Your task to perform on an android device: toggle notification dots Image 0: 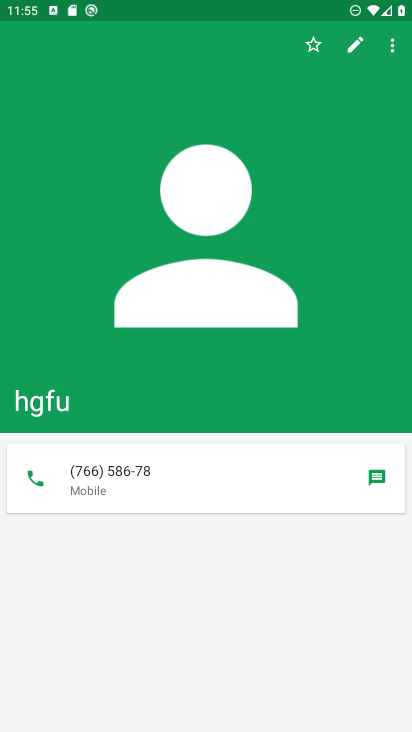
Step 0: press home button
Your task to perform on an android device: toggle notification dots Image 1: 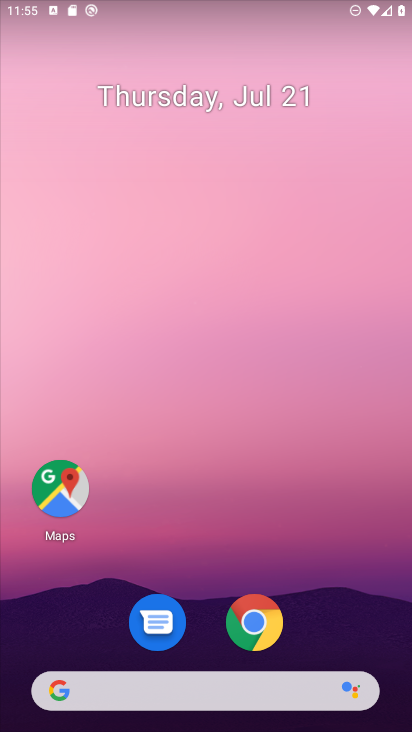
Step 1: drag from (235, 730) to (121, 4)
Your task to perform on an android device: toggle notification dots Image 2: 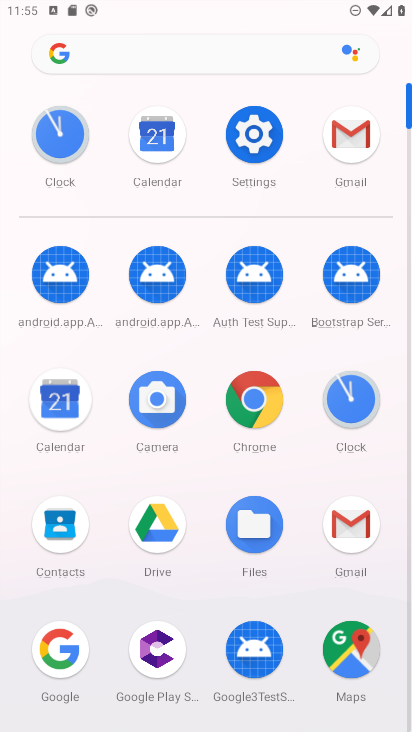
Step 2: click (253, 137)
Your task to perform on an android device: toggle notification dots Image 3: 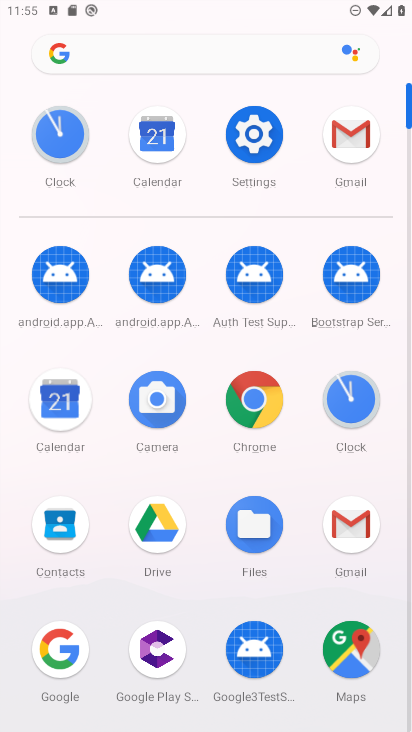
Step 3: click (253, 137)
Your task to perform on an android device: toggle notification dots Image 4: 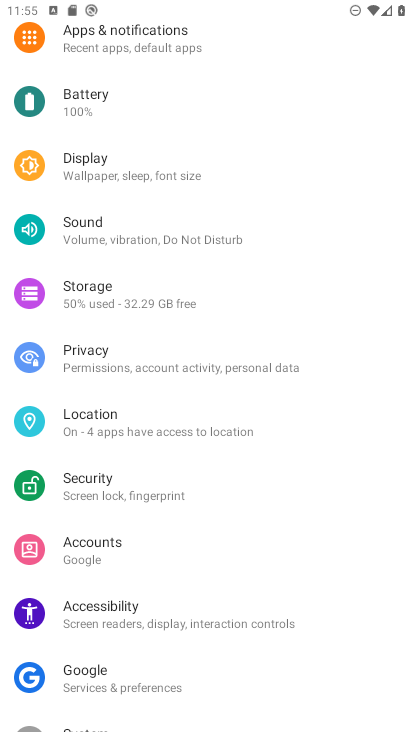
Step 4: click (194, 38)
Your task to perform on an android device: toggle notification dots Image 5: 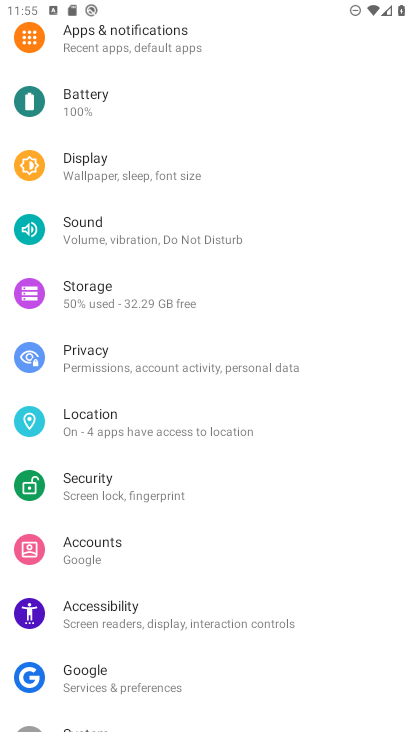
Step 5: click (194, 38)
Your task to perform on an android device: toggle notification dots Image 6: 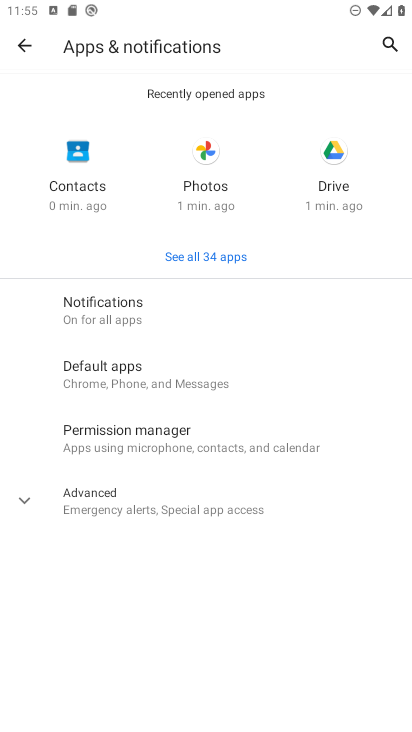
Step 6: click (217, 319)
Your task to perform on an android device: toggle notification dots Image 7: 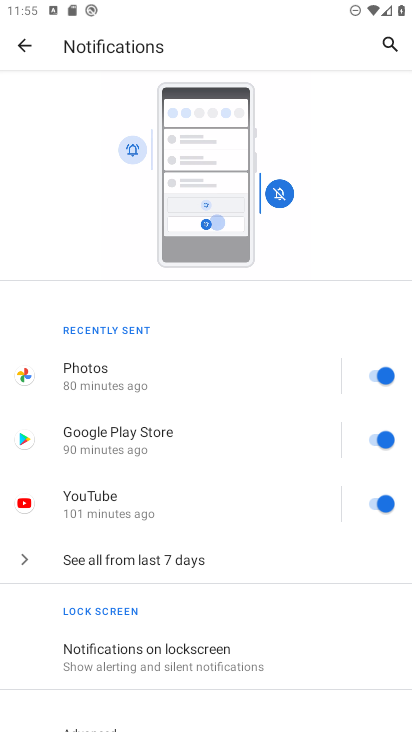
Step 7: drag from (234, 617) to (283, 42)
Your task to perform on an android device: toggle notification dots Image 8: 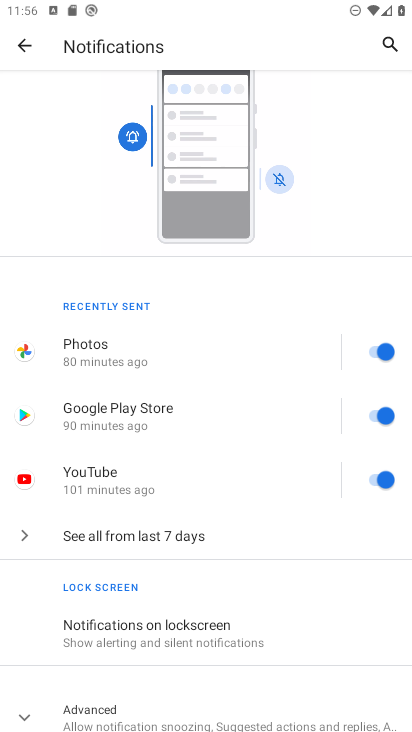
Step 8: click (322, 719)
Your task to perform on an android device: toggle notification dots Image 9: 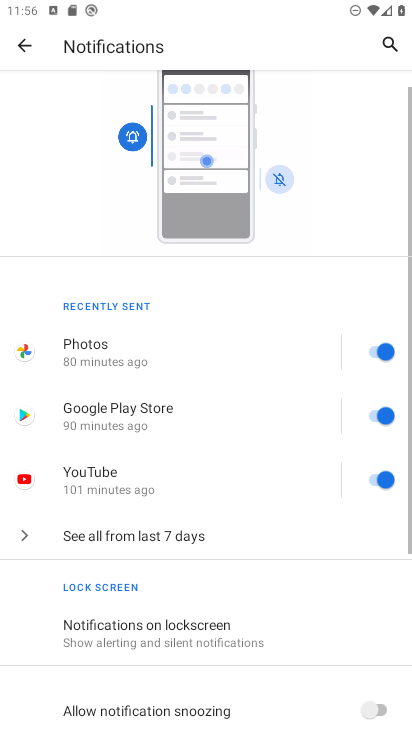
Step 9: drag from (292, 620) to (222, 8)
Your task to perform on an android device: toggle notification dots Image 10: 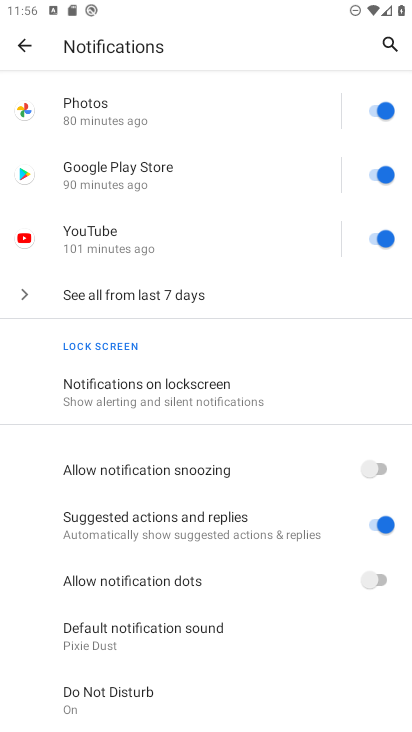
Step 10: click (378, 574)
Your task to perform on an android device: toggle notification dots Image 11: 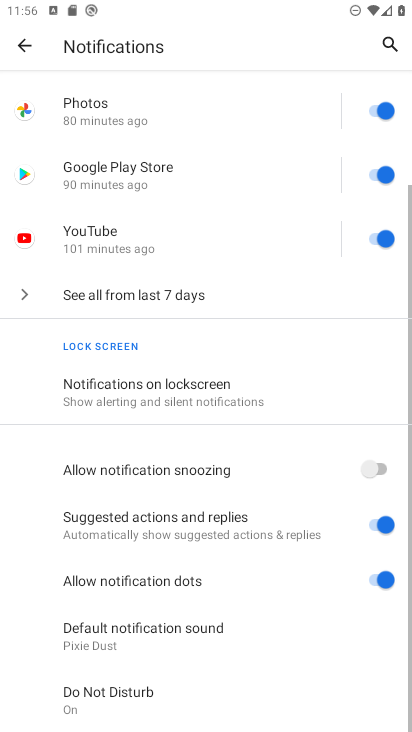
Step 11: task complete